Your task to perform on an android device: change timer sound Image 0: 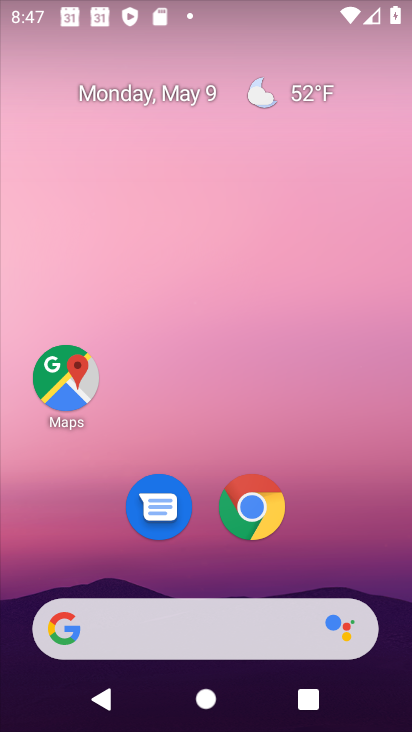
Step 0: drag from (334, 555) to (243, 101)
Your task to perform on an android device: change timer sound Image 1: 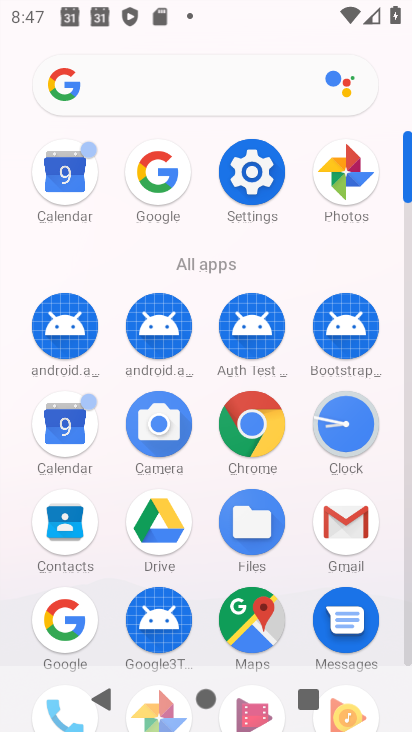
Step 1: click (346, 424)
Your task to perform on an android device: change timer sound Image 2: 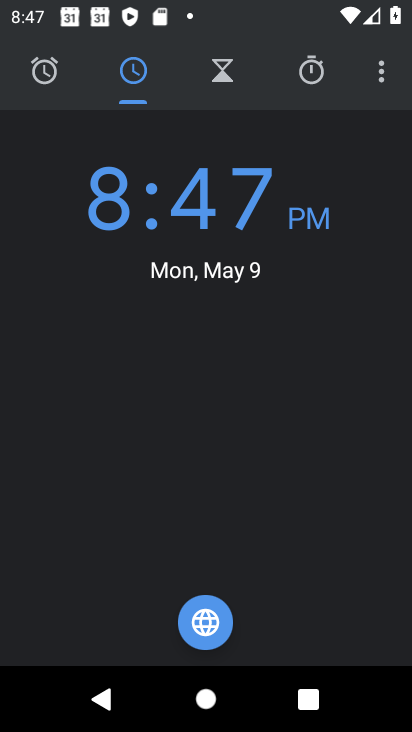
Step 2: click (383, 67)
Your task to perform on an android device: change timer sound Image 3: 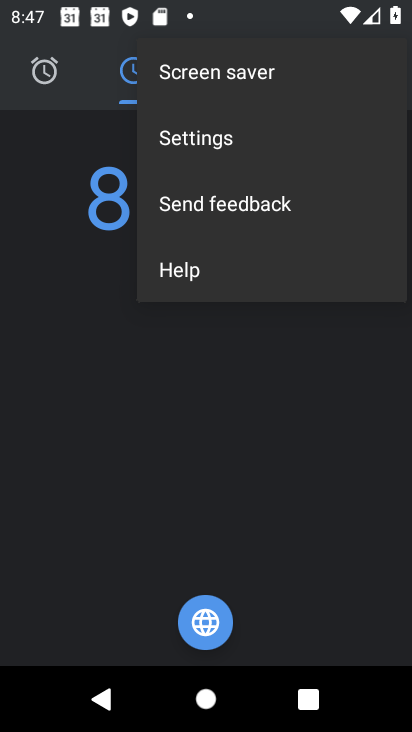
Step 3: click (235, 132)
Your task to perform on an android device: change timer sound Image 4: 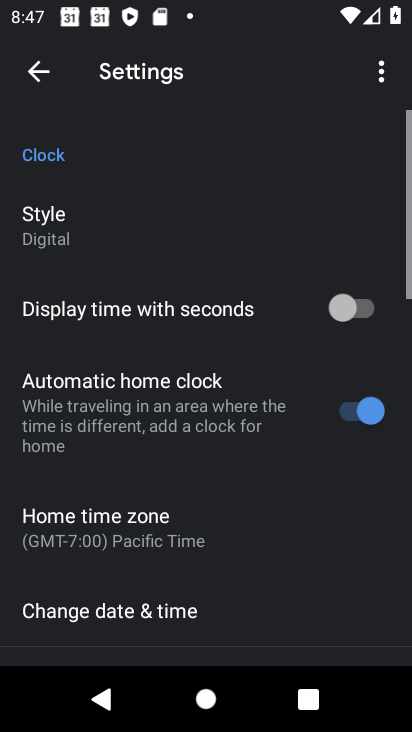
Step 4: drag from (202, 492) to (206, 326)
Your task to perform on an android device: change timer sound Image 5: 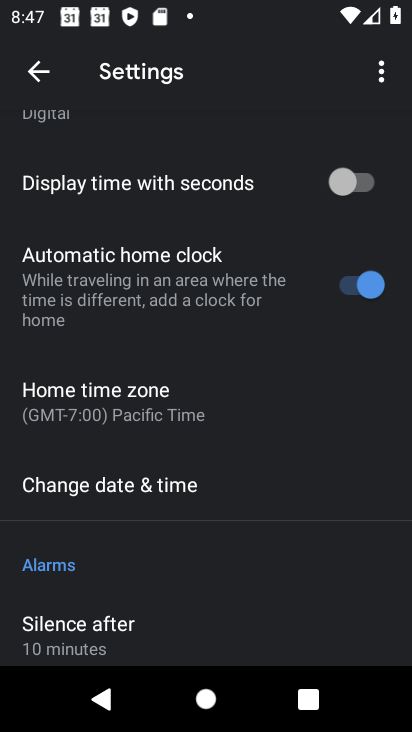
Step 5: drag from (170, 556) to (200, 367)
Your task to perform on an android device: change timer sound Image 6: 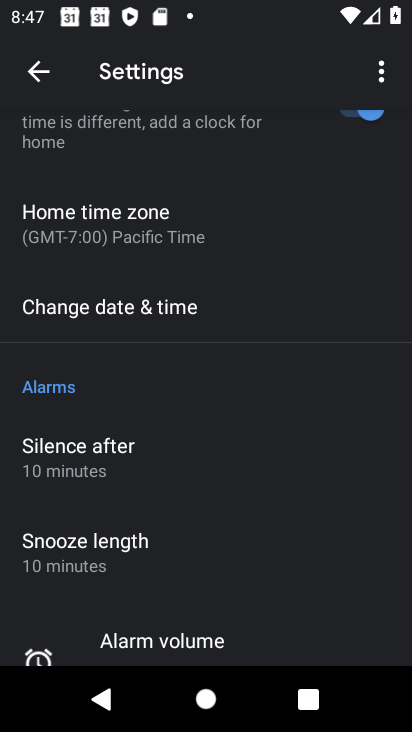
Step 6: drag from (134, 511) to (205, 392)
Your task to perform on an android device: change timer sound Image 7: 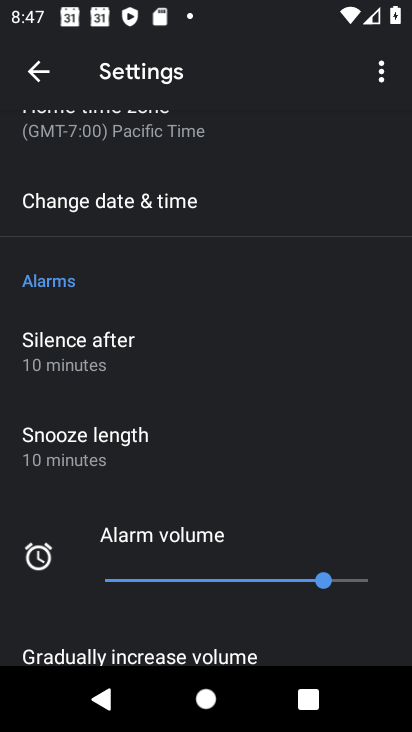
Step 7: drag from (106, 590) to (196, 434)
Your task to perform on an android device: change timer sound Image 8: 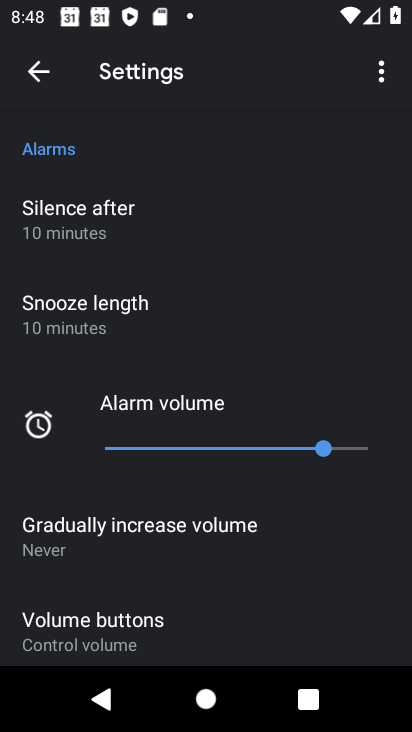
Step 8: drag from (112, 593) to (235, 420)
Your task to perform on an android device: change timer sound Image 9: 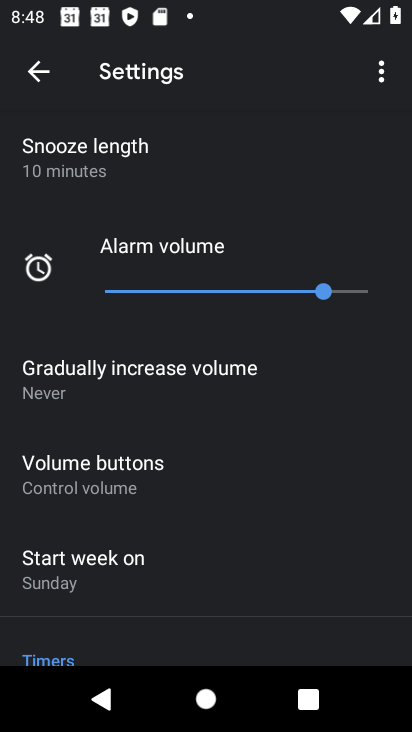
Step 9: drag from (106, 528) to (210, 358)
Your task to perform on an android device: change timer sound Image 10: 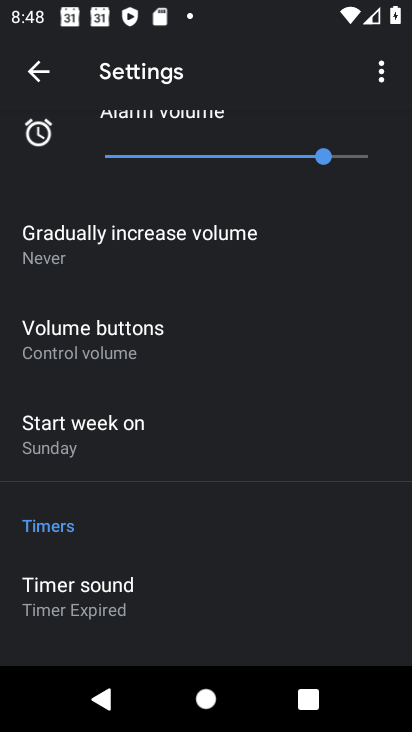
Step 10: drag from (125, 542) to (225, 373)
Your task to perform on an android device: change timer sound Image 11: 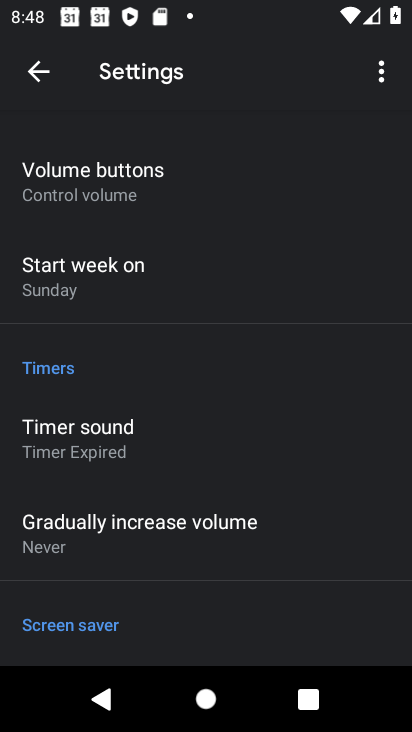
Step 11: click (127, 439)
Your task to perform on an android device: change timer sound Image 12: 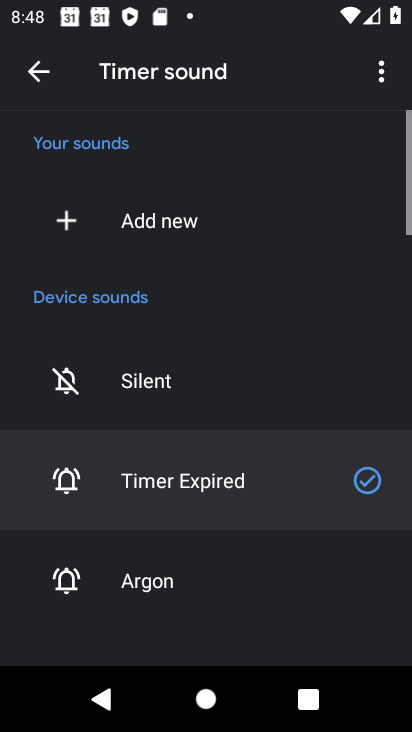
Step 12: drag from (194, 561) to (209, 323)
Your task to perform on an android device: change timer sound Image 13: 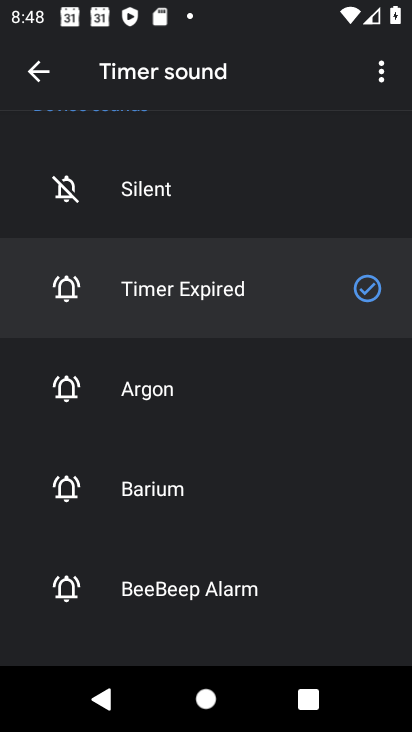
Step 13: click (203, 583)
Your task to perform on an android device: change timer sound Image 14: 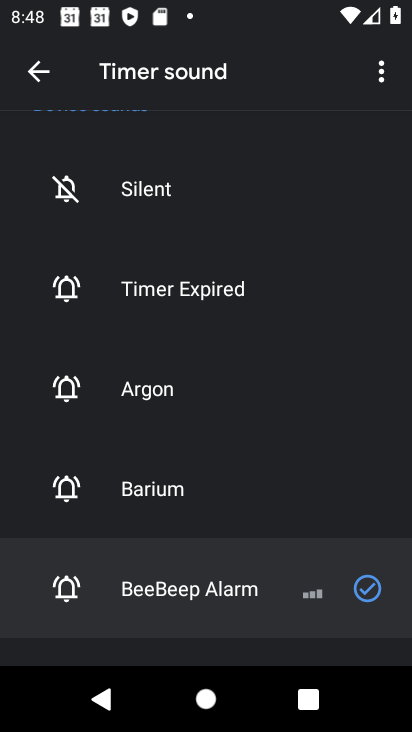
Step 14: task complete